Your task to perform on an android device: Go to Maps Image 0: 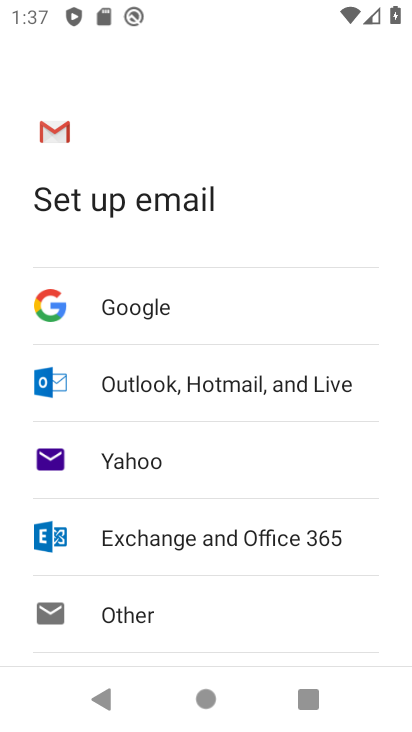
Step 0: press home button
Your task to perform on an android device: Go to Maps Image 1: 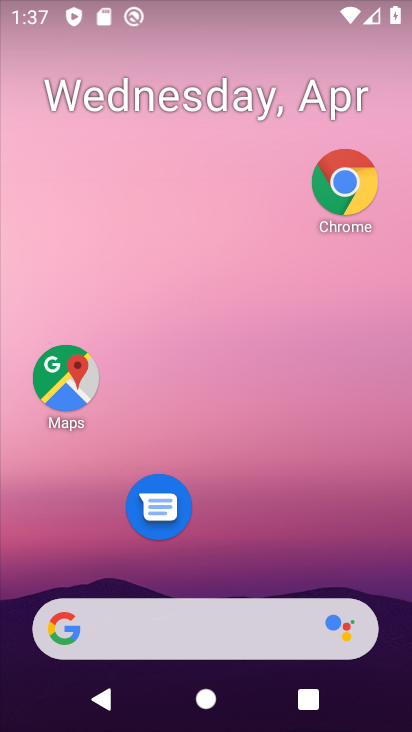
Step 1: click (43, 386)
Your task to perform on an android device: Go to Maps Image 2: 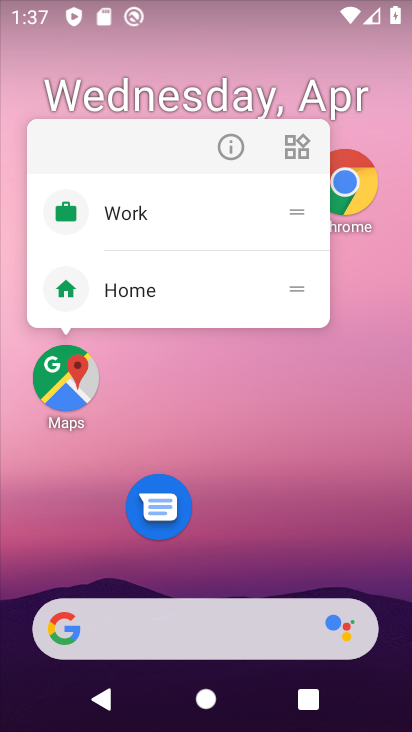
Step 2: click (43, 386)
Your task to perform on an android device: Go to Maps Image 3: 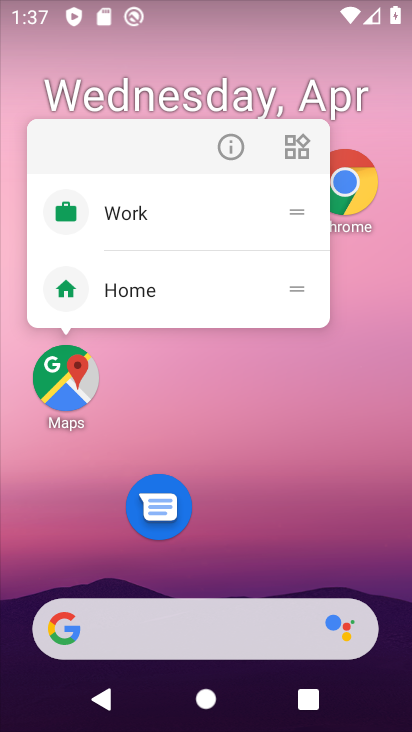
Step 3: click (43, 386)
Your task to perform on an android device: Go to Maps Image 4: 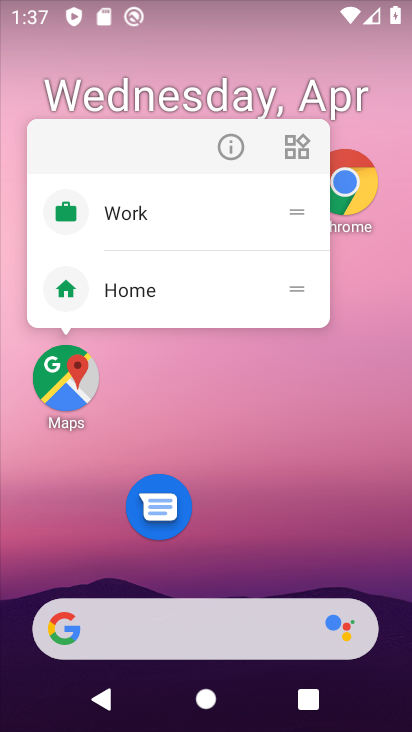
Step 4: click (43, 386)
Your task to perform on an android device: Go to Maps Image 5: 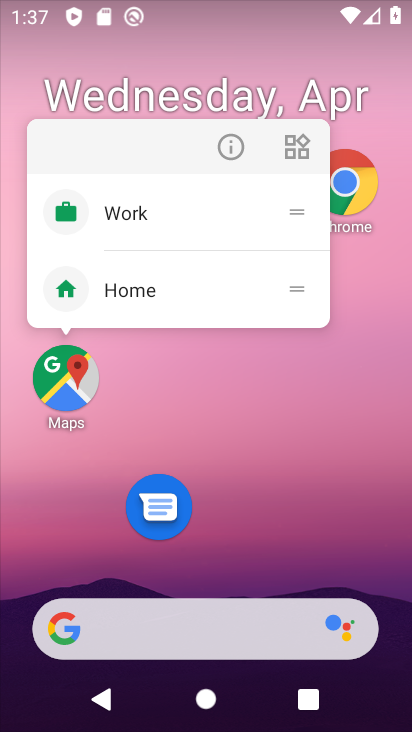
Step 5: click (43, 386)
Your task to perform on an android device: Go to Maps Image 6: 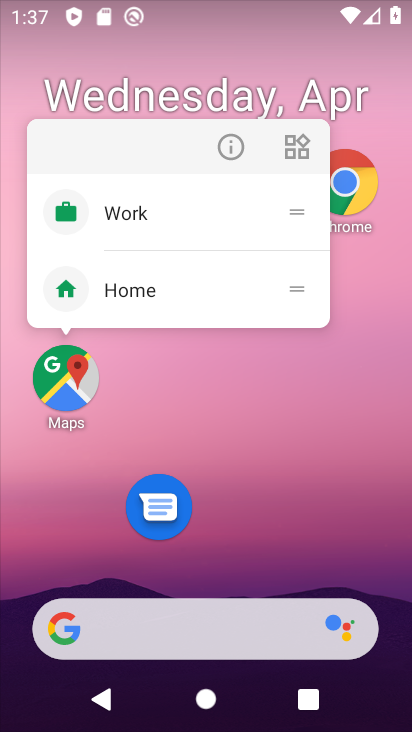
Step 6: click (43, 386)
Your task to perform on an android device: Go to Maps Image 7: 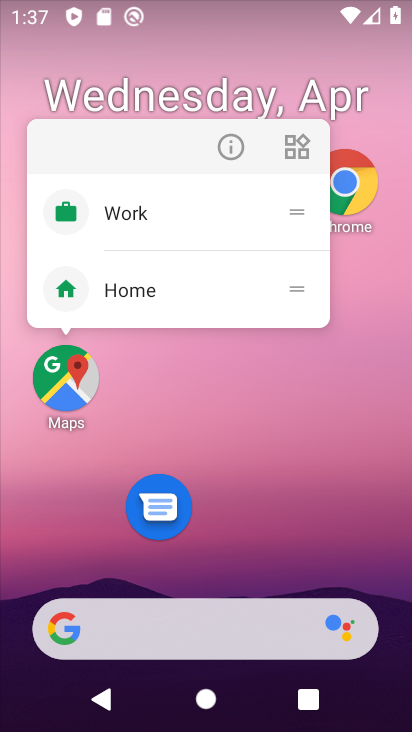
Step 7: click (82, 391)
Your task to perform on an android device: Go to Maps Image 8: 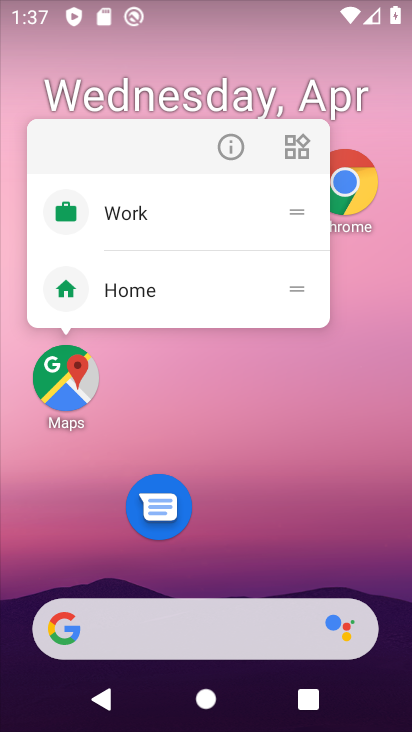
Step 8: click (82, 391)
Your task to perform on an android device: Go to Maps Image 9: 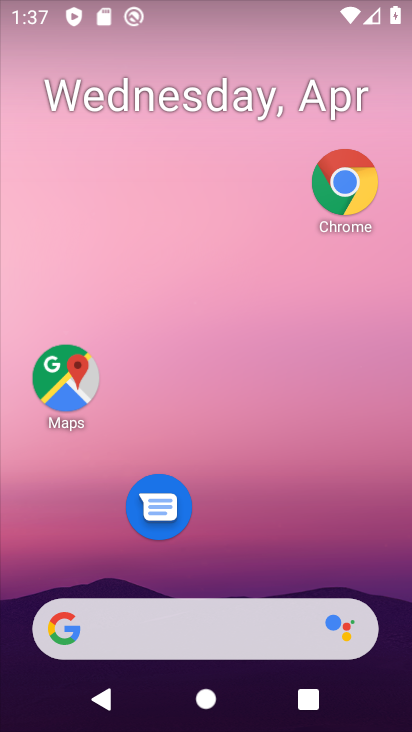
Step 9: click (82, 391)
Your task to perform on an android device: Go to Maps Image 10: 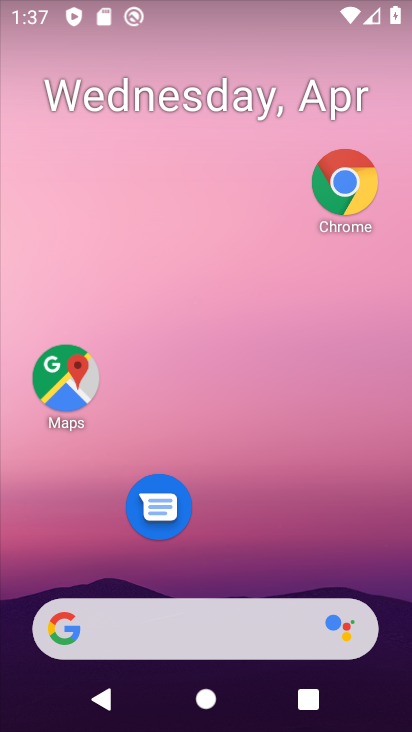
Step 10: click (82, 391)
Your task to perform on an android device: Go to Maps Image 11: 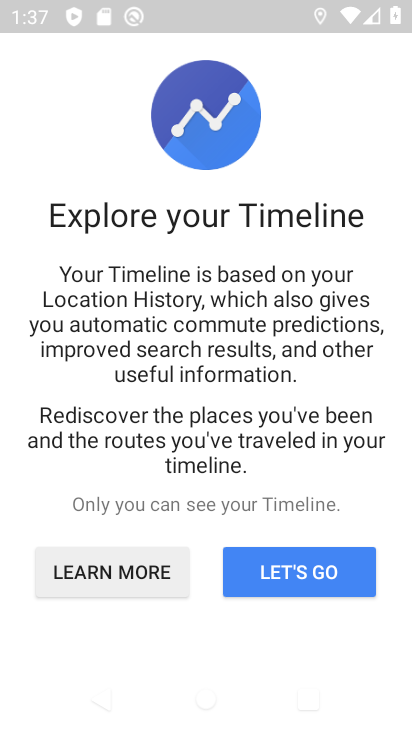
Step 11: task complete